Your task to perform on an android device: turn off notifications in google photos Image 0: 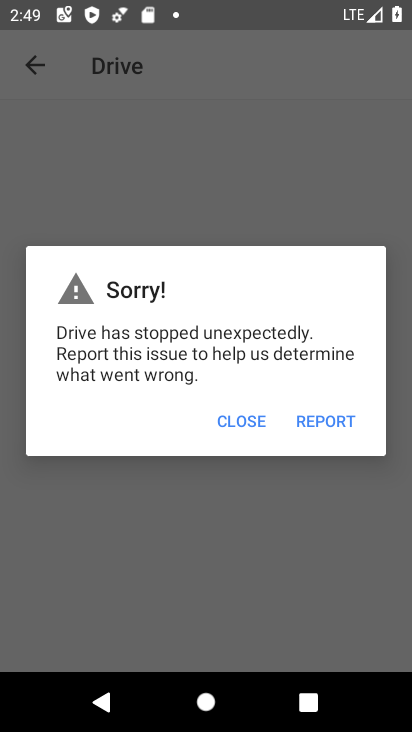
Step 0: press home button
Your task to perform on an android device: turn off notifications in google photos Image 1: 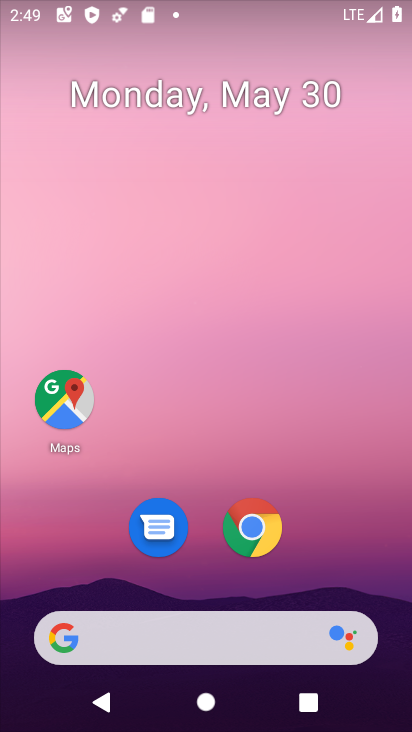
Step 1: drag from (306, 575) to (318, 58)
Your task to perform on an android device: turn off notifications in google photos Image 2: 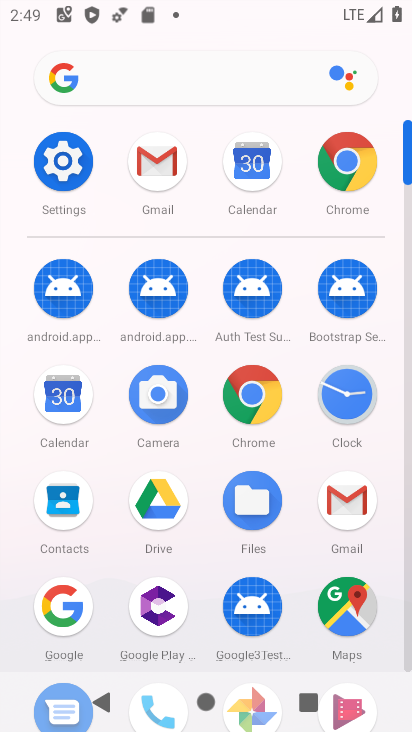
Step 2: drag from (201, 284) to (233, 4)
Your task to perform on an android device: turn off notifications in google photos Image 3: 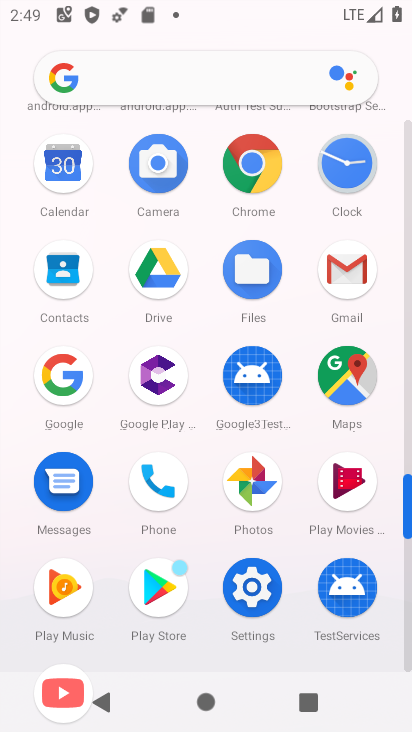
Step 3: click (254, 460)
Your task to perform on an android device: turn off notifications in google photos Image 4: 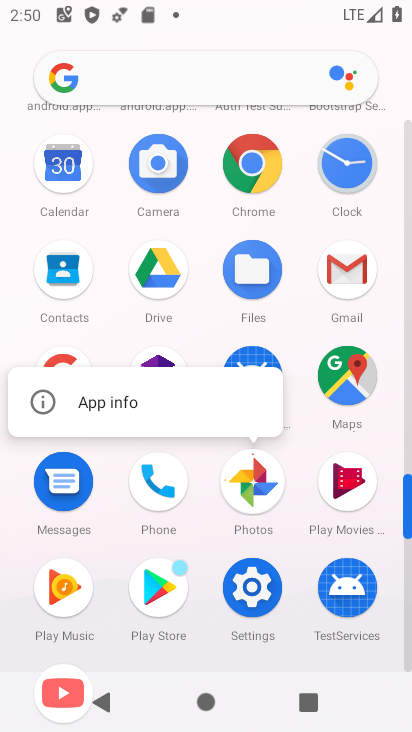
Step 4: click (172, 403)
Your task to perform on an android device: turn off notifications in google photos Image 5: 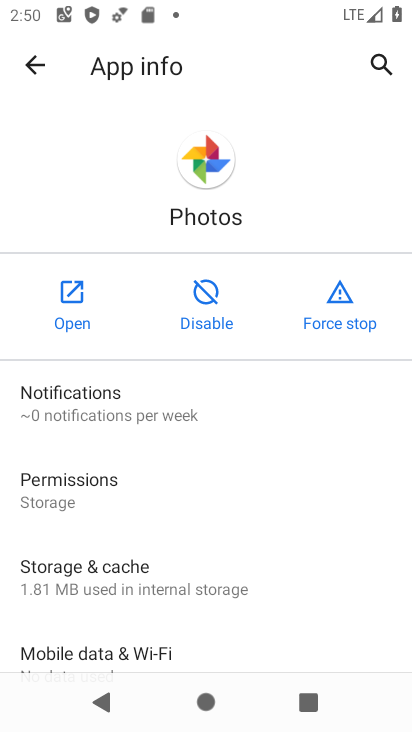
Step 5: click (129, 406)
Your task to perform on an android device: turn off notifications in google photos Image 6: 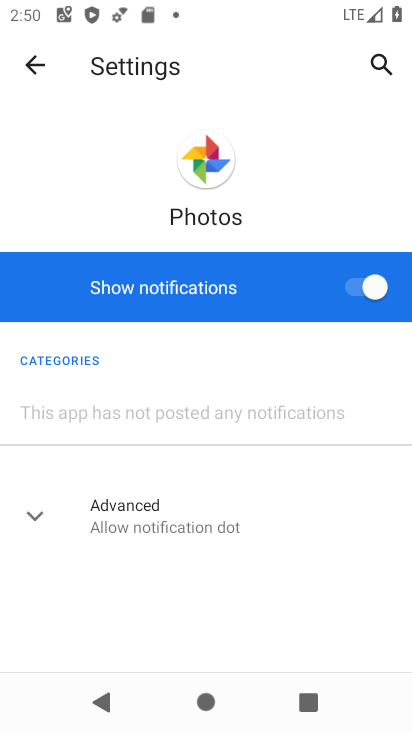
Step 6: click (357, 279)
Your task to perform on an android device: turn off notifications in google photos Image 7: 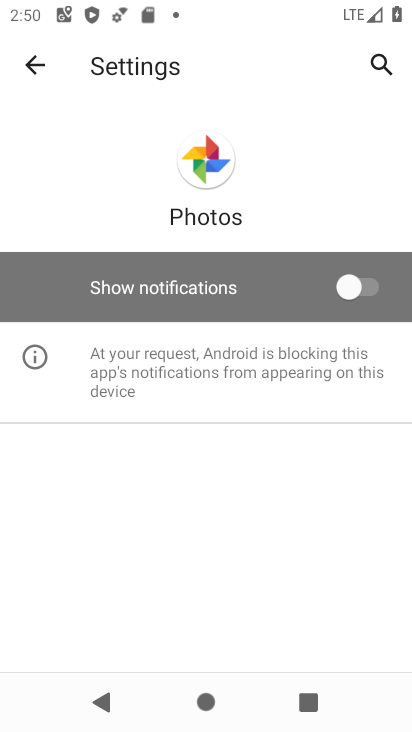
Step 7: task complete